Your task to perform on an android device: open app "Paramount+ | Peak Streaming" Image 0: 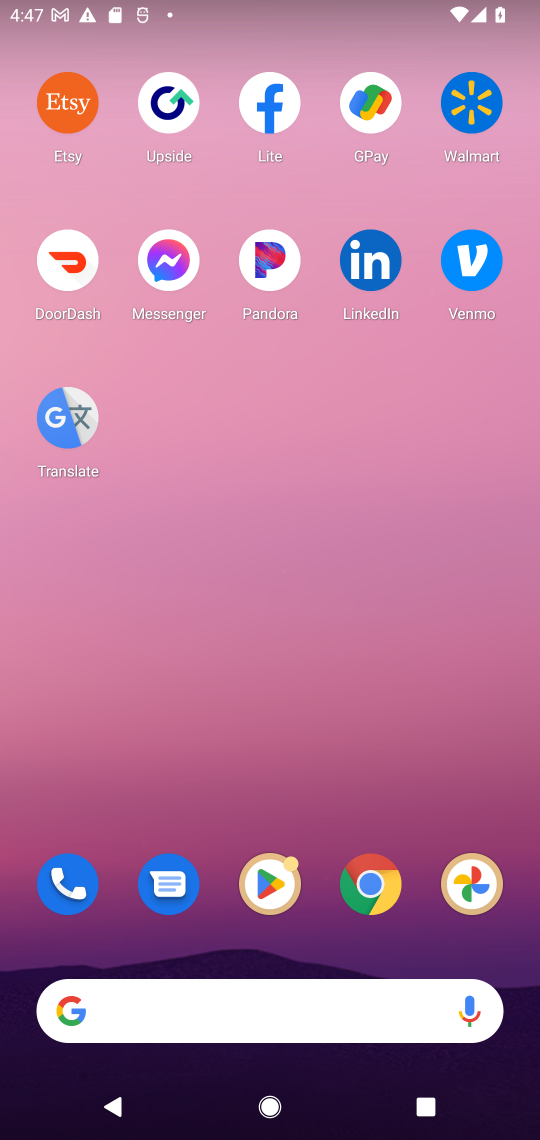
Step 0: click (276, 898)
Your task to perform on an android device: open app "Paramount+ | Peak Streaming" Image 1: 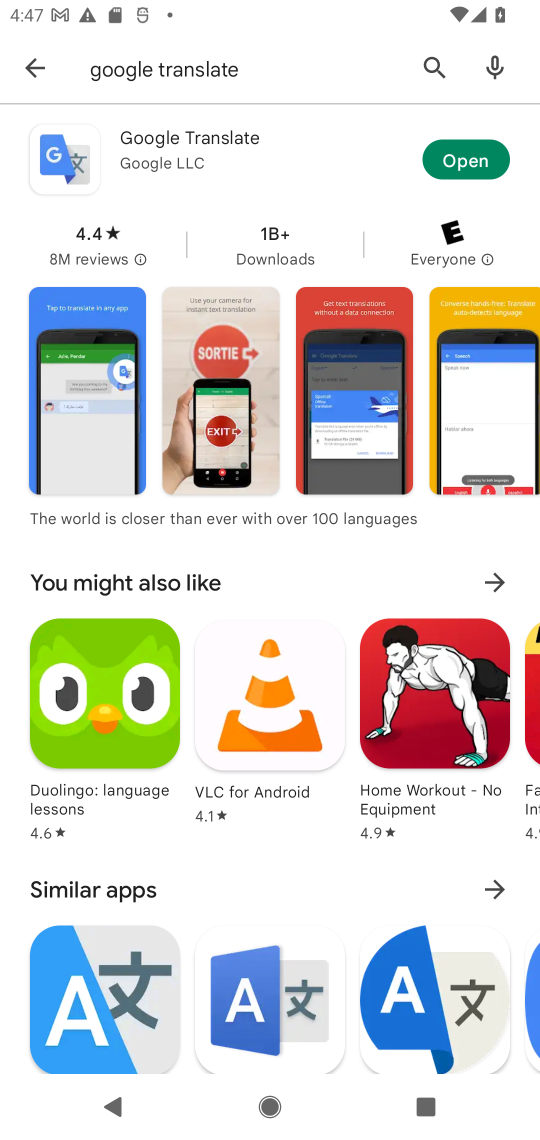
Step 1: click (32, 63)
Your task to perform on an android device: open app "Paramount+ | Peak Streaming" Image 2: 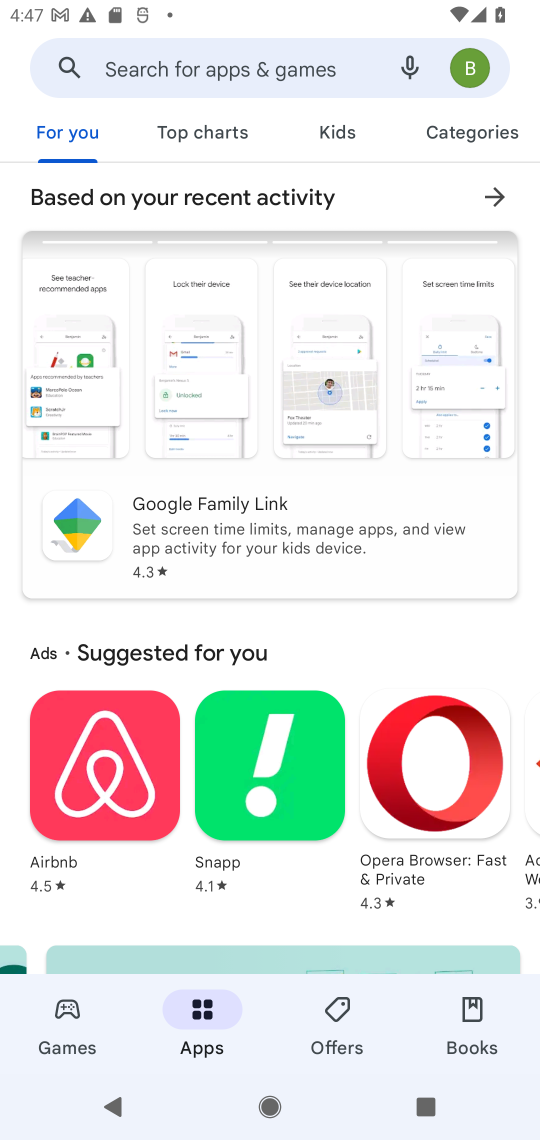
Step 2: click (215, 59)
Your task to perform on an android device: open app "Paramount+ | Peak Streaming" Image 3: 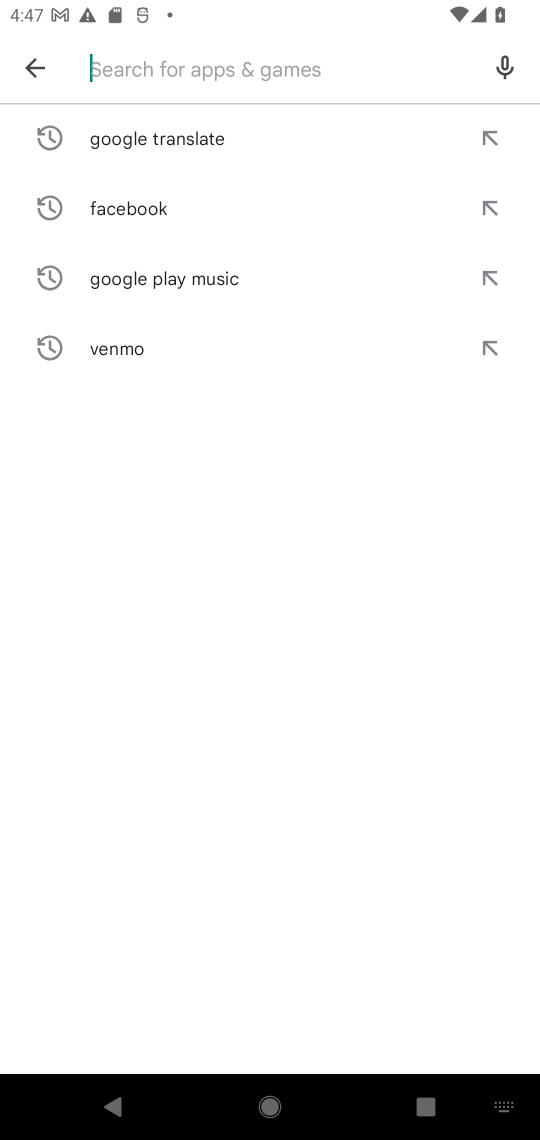
Step 3: type "Paramount+ | Peak Streaming"
Your task to perform on an android device: open app "Paramount+ | Peak Streaming" Image 4: 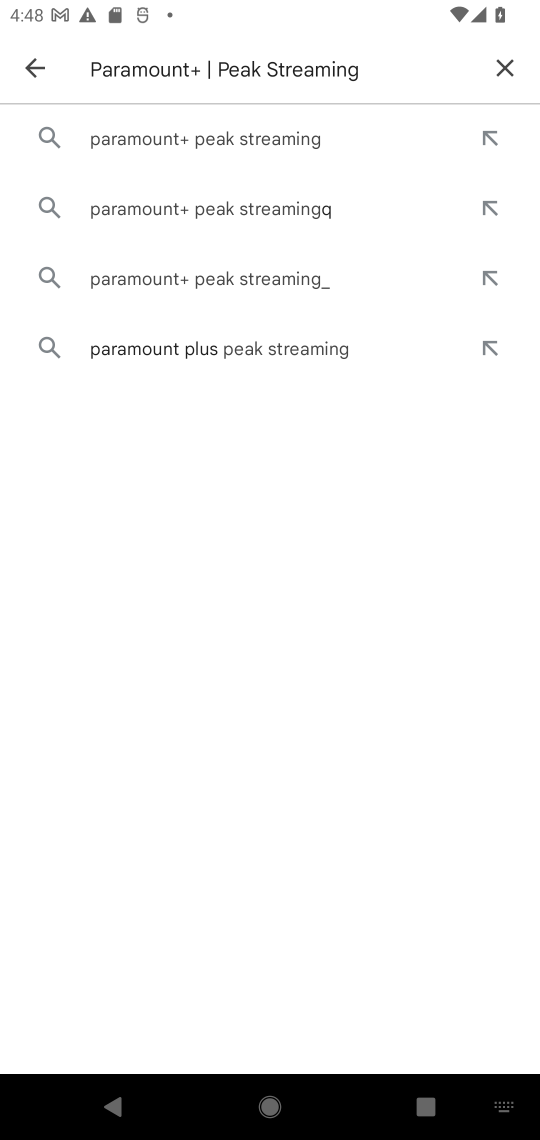
Step 4: click (226, 149)
Your task to perform on an android device: open app "Paramount+ | Peak Streaming" Image 5: 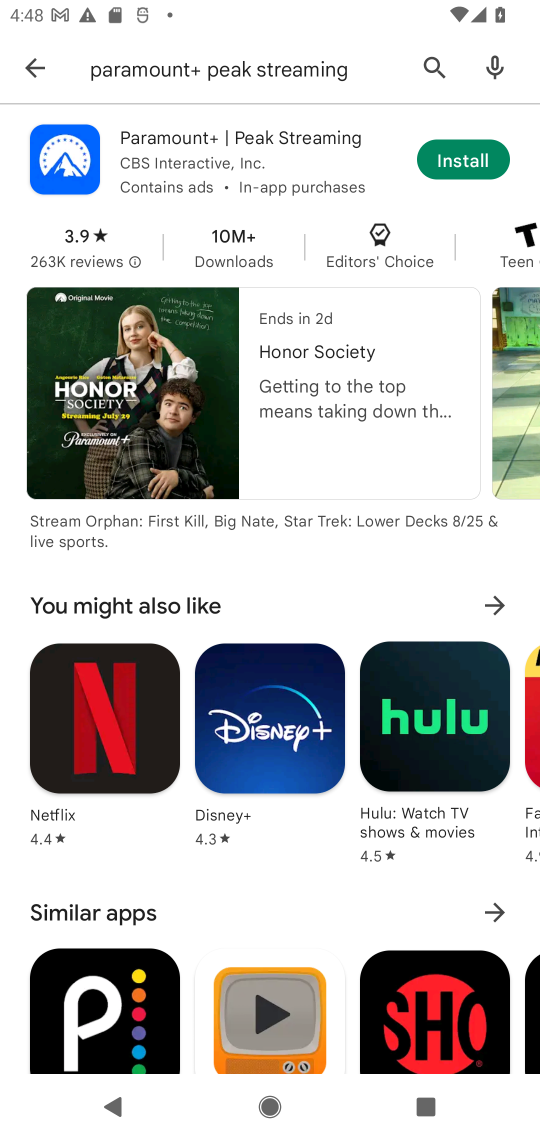
Step 5: click (449, 171)
Your task to perform on an android device: open app "Paramount+ | Peak Streaming" Image 6: 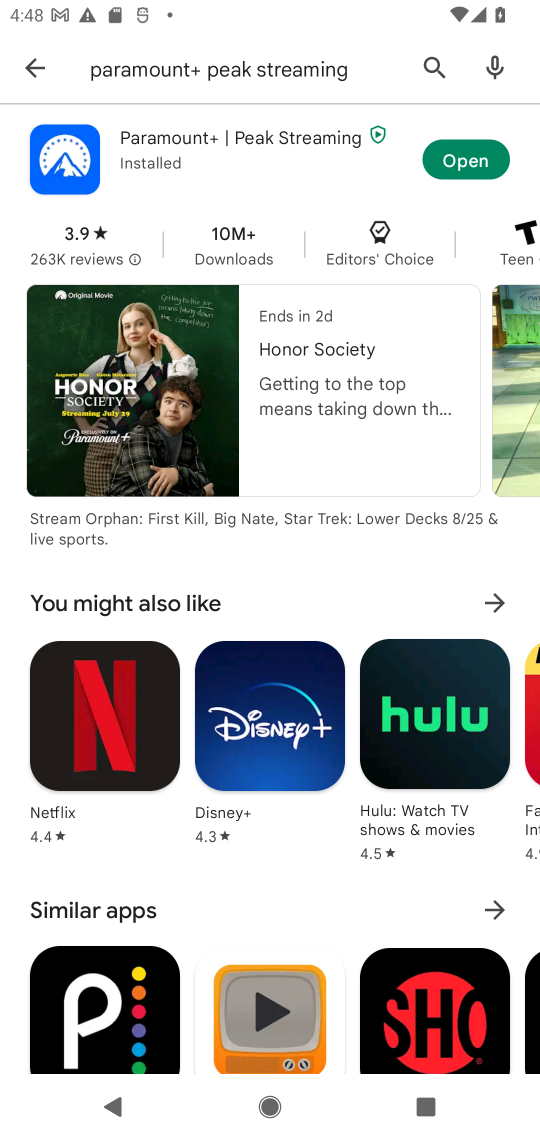
Step 6: click (449, 171)
Your task to perform on an android device: open app "Paramount+ | Peak Streaming" Image 7: 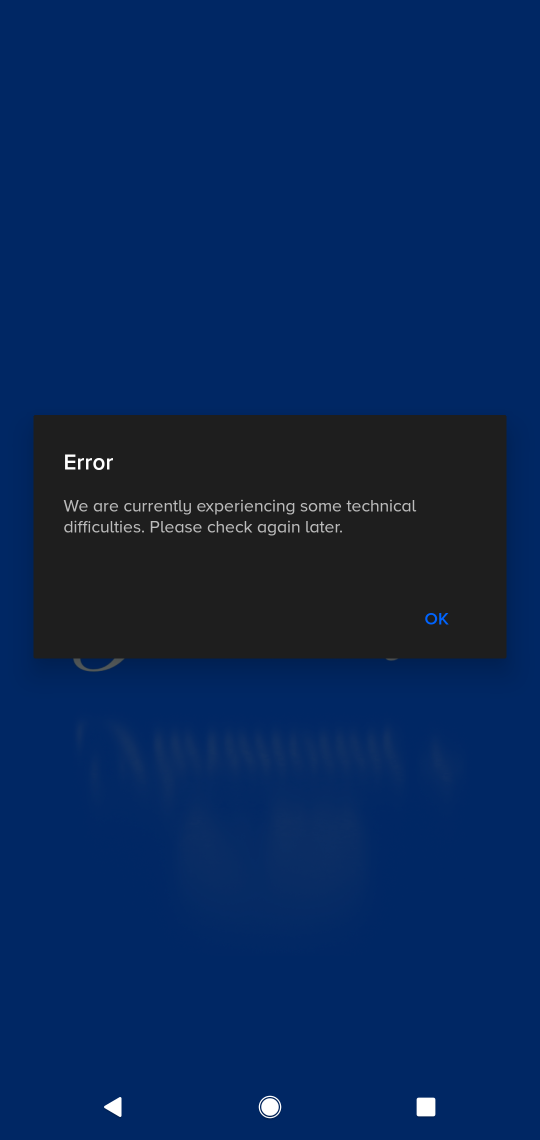
Step 7: click (439, 616)
Your task to perform on an android device: open app "Paramount+ | Peak Streaming" Image 8: 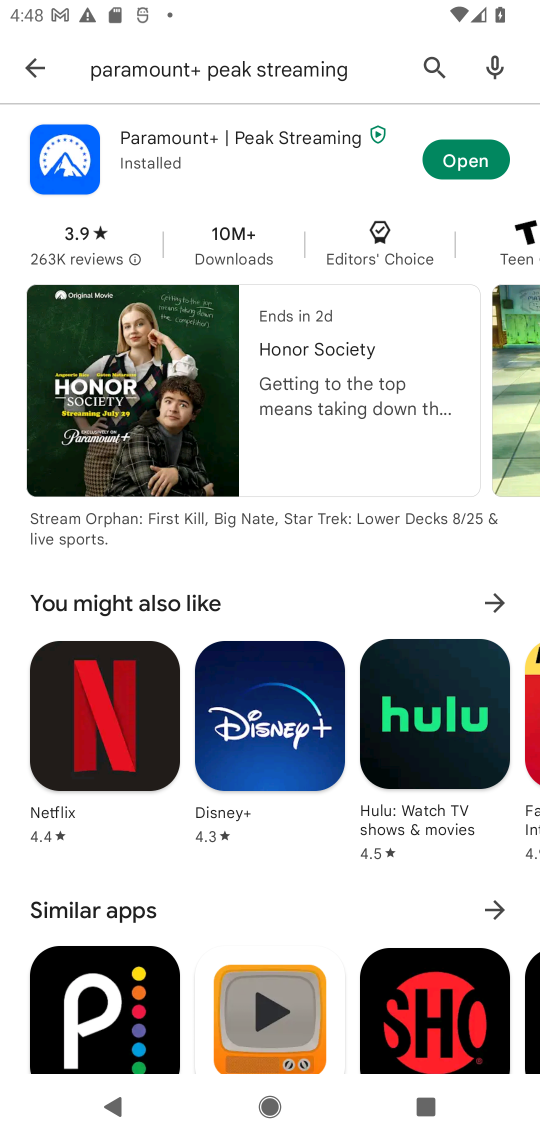
Step 8: click (485, 150)
Your task to perform on an android device: open app "Paramount+ | Peak Streaming" Image 9: 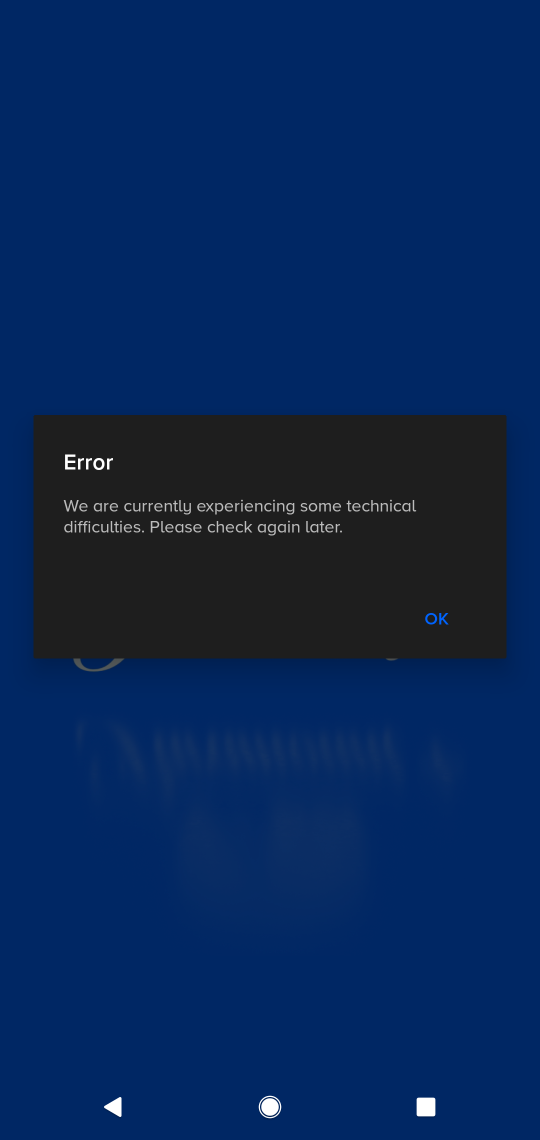
Step 9: task complete